Your task to perform on an android device: find which apps use the phone's location Image 0: 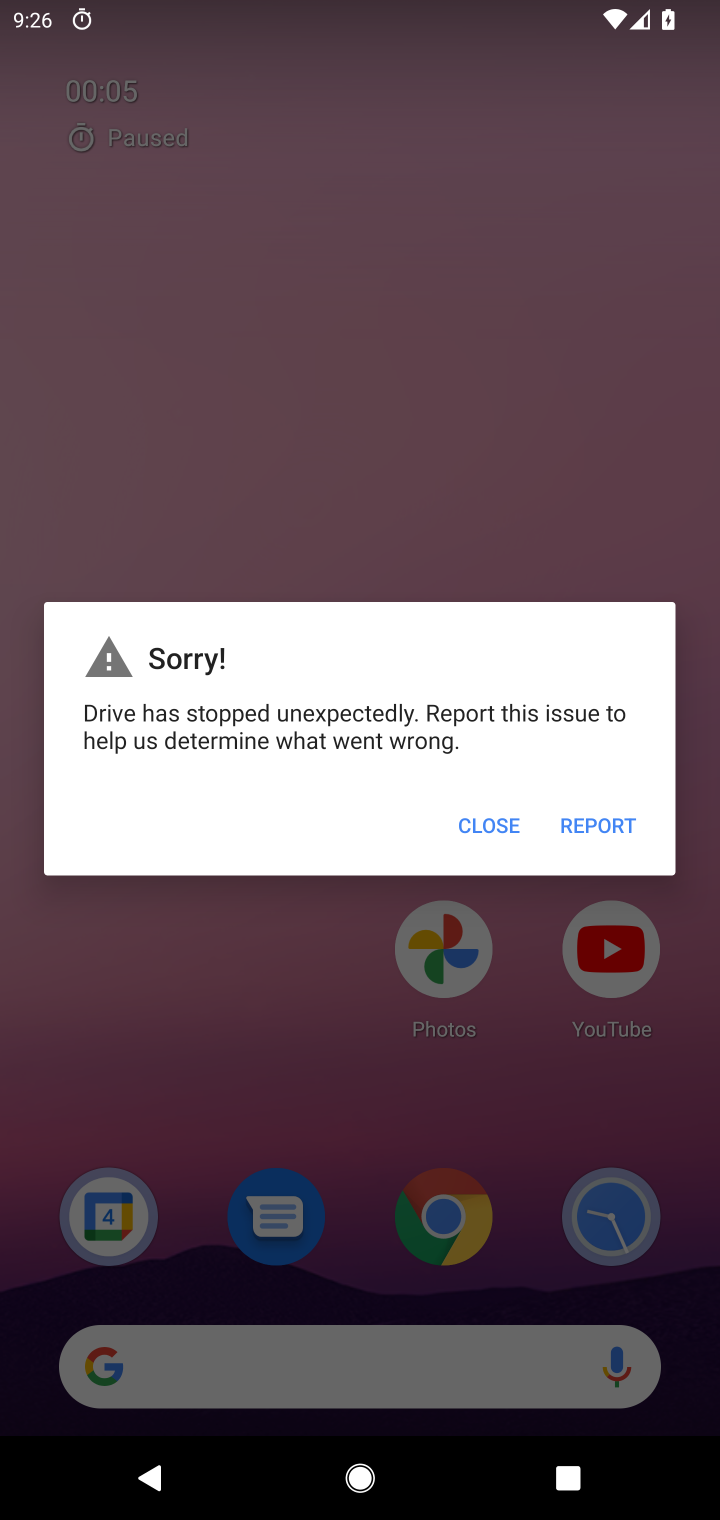
Step 0: drag from (358, 1219) to (386, 213)
Your task to perform on an android device: find which apps use the phone's location Image 1: 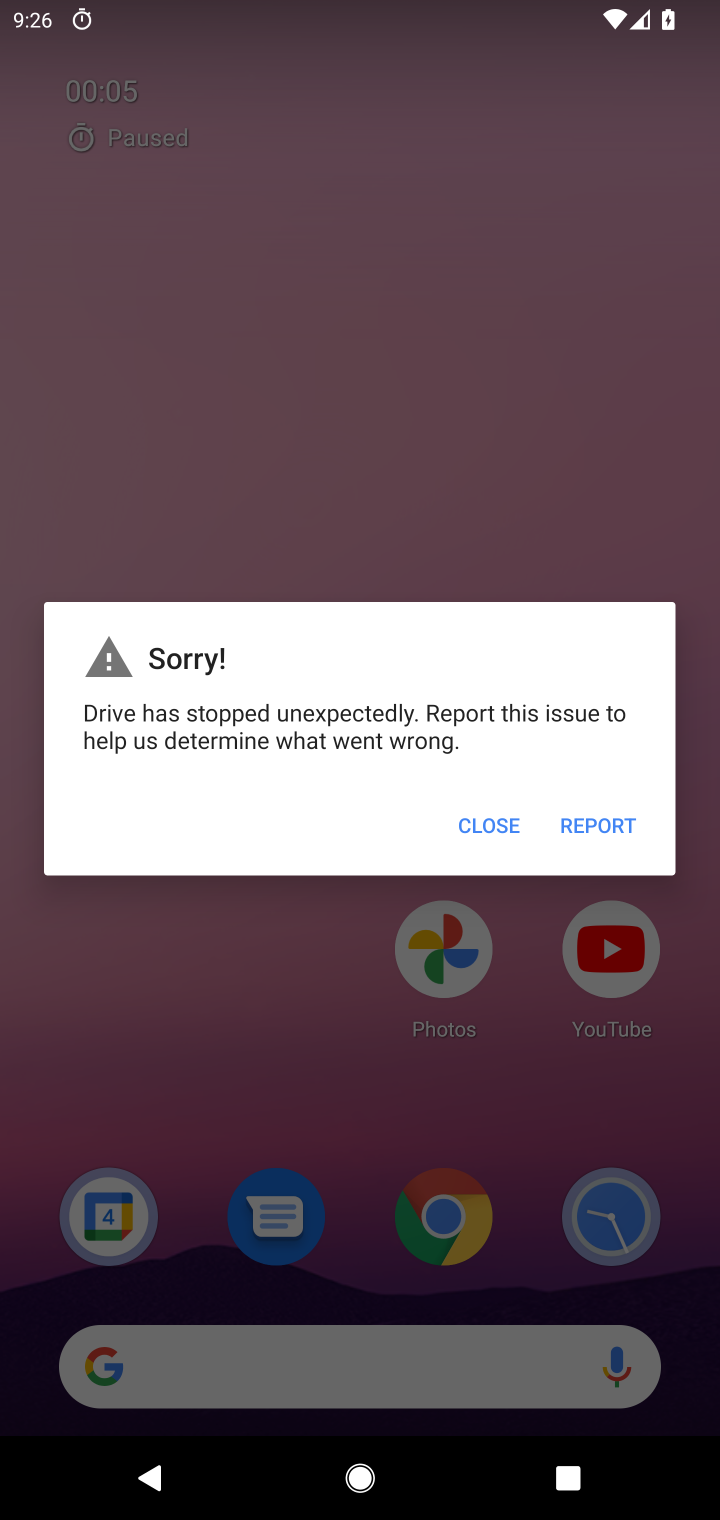
Step 1: press home button
Your task to perform on an android device: find which apps use the phone's location Image 2: 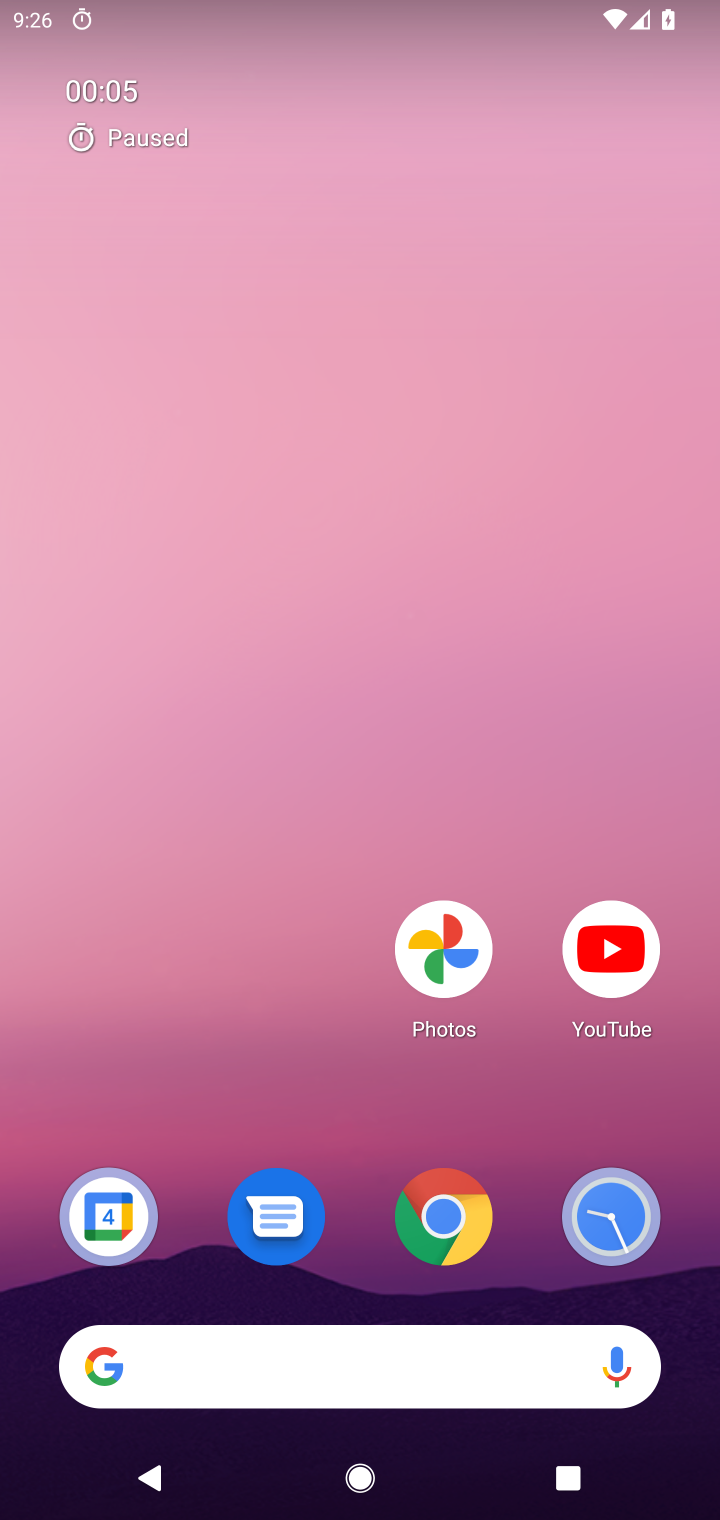
Step 2: drag from (359, 1139) to (338, 174)
Your task to perform on an android device: find which apps use the phone's location Image 3: 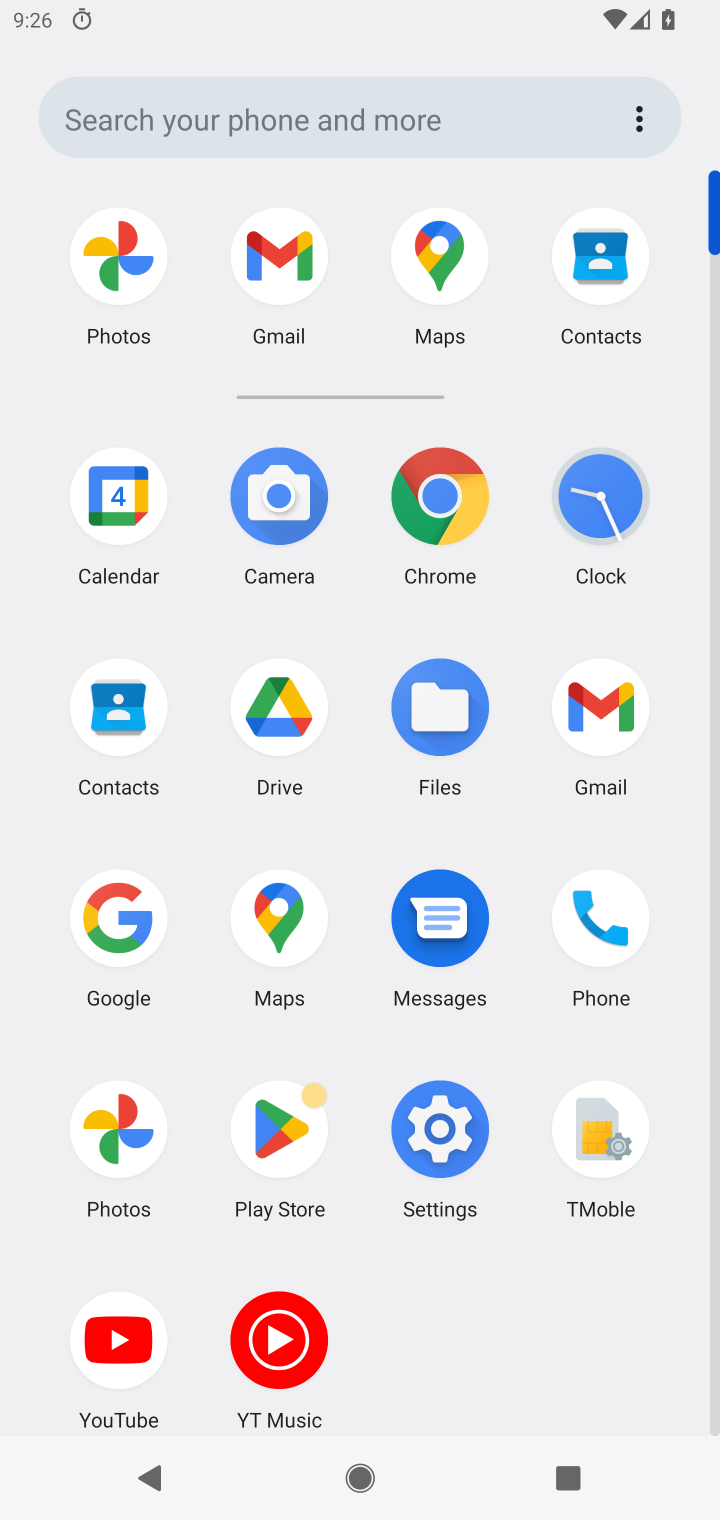
Step 3: click (428, 1140)
Your task to perform on an android device: find which apps use the phone's location Image 4: 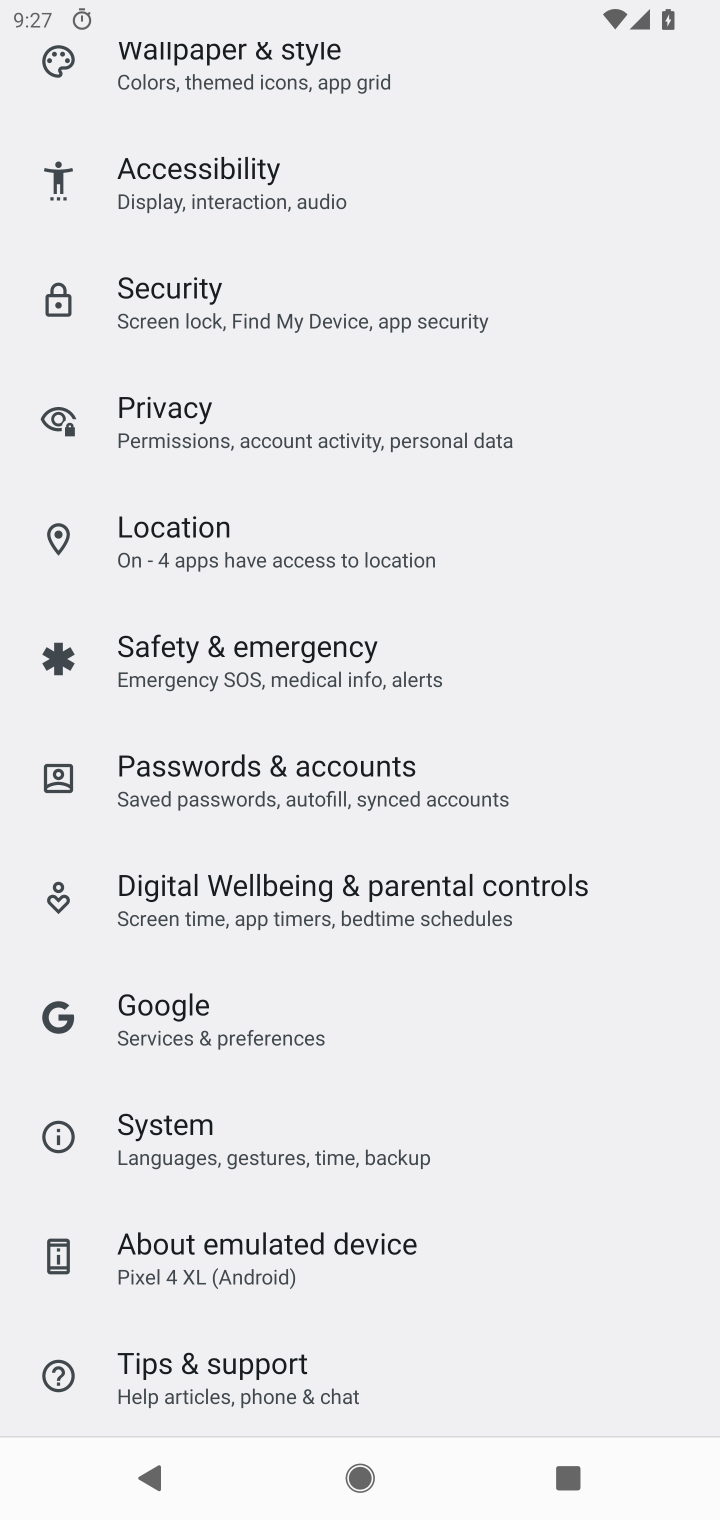
Step 4: click (193, 531)
Your task to perform on an android device: find which apps use the phone's location Image 5: 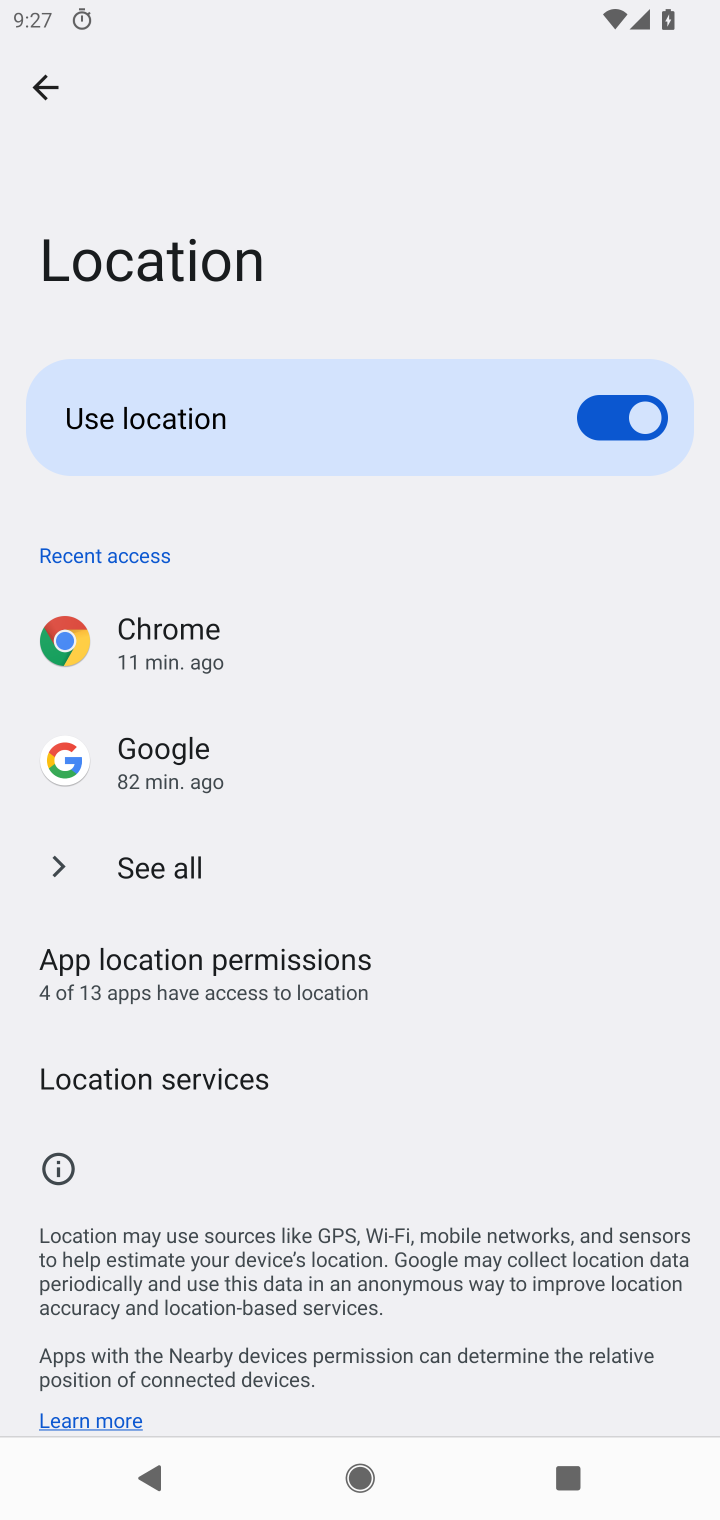
Step 5: click (187, 987)
Your task to perform on an android device: find which apps use the phone's location Image 6: 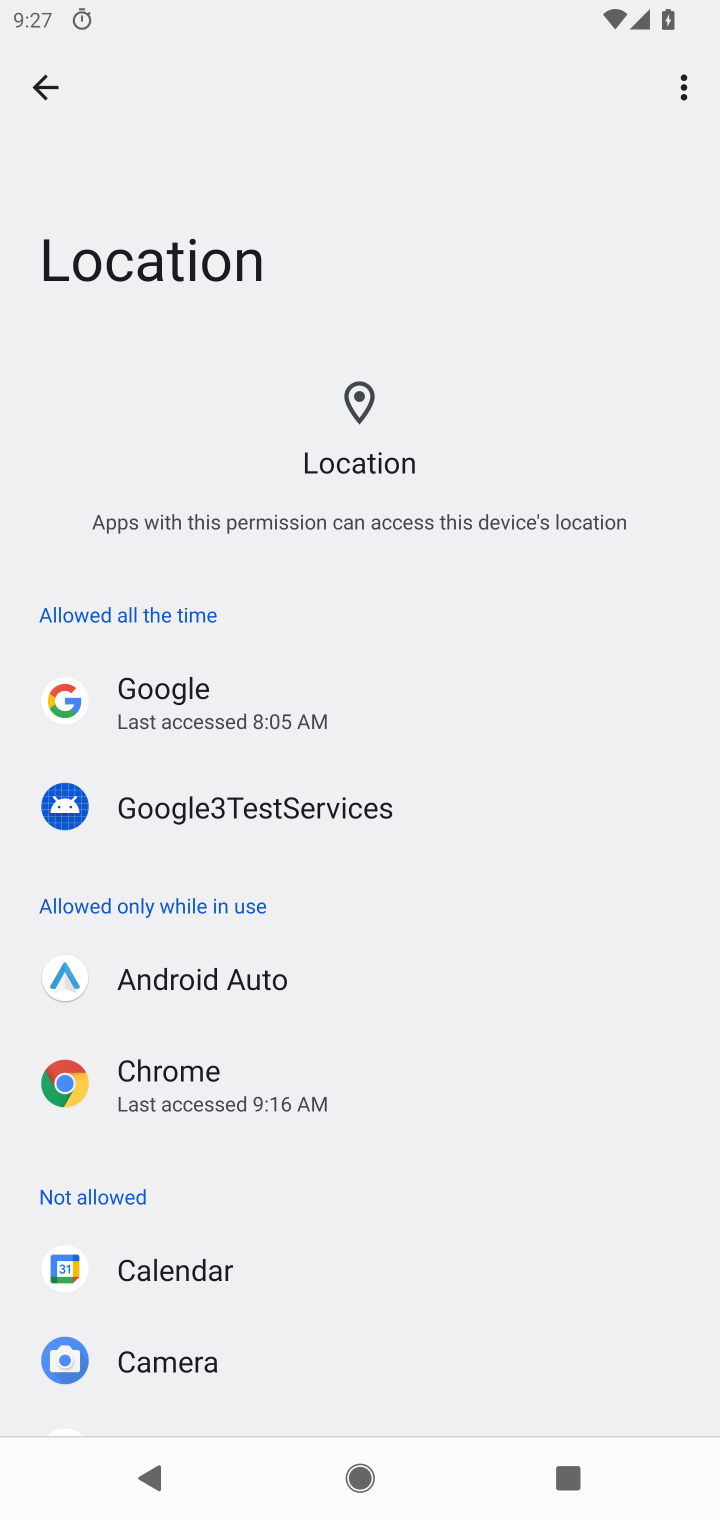
Step 6: task complete